Your task to perform on an android device: turn on javascript in the chrome app Image 0: 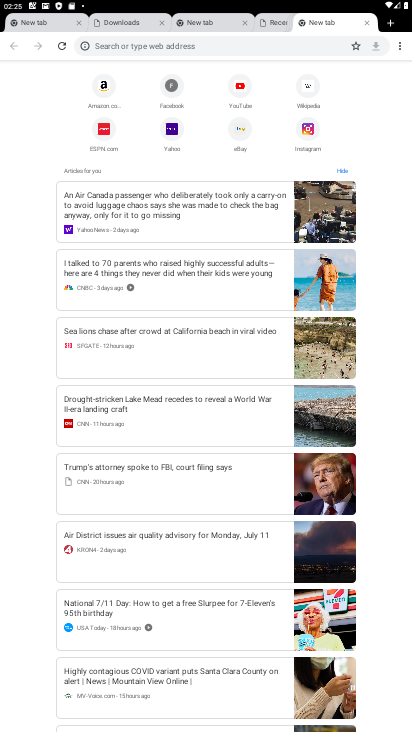
Step 0: press home button
Your task to perform on an android device: turn on javascript in the chrome app Image 1: 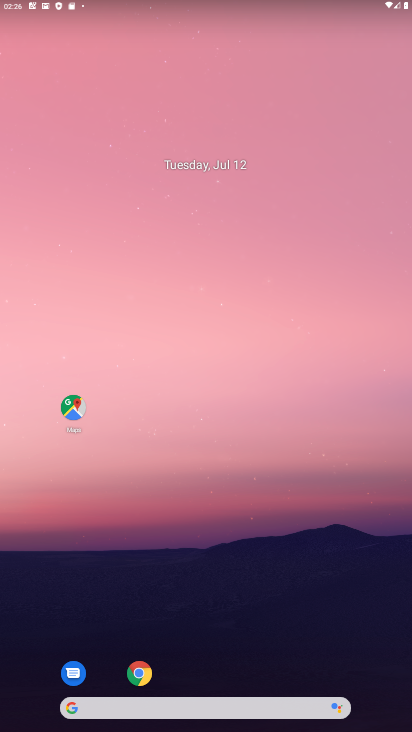
Step 1: drag from (214, 642) to (175, 141)
Your task to perform on an android device: turn on javascript in the chrome app Image 2: 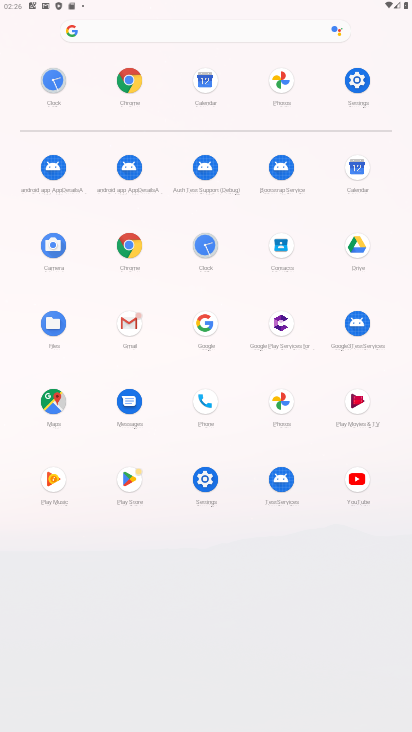
Step 2: click (126, 83)
Your task to perform on an android device: turn on javascript in the chrome app Image 3: 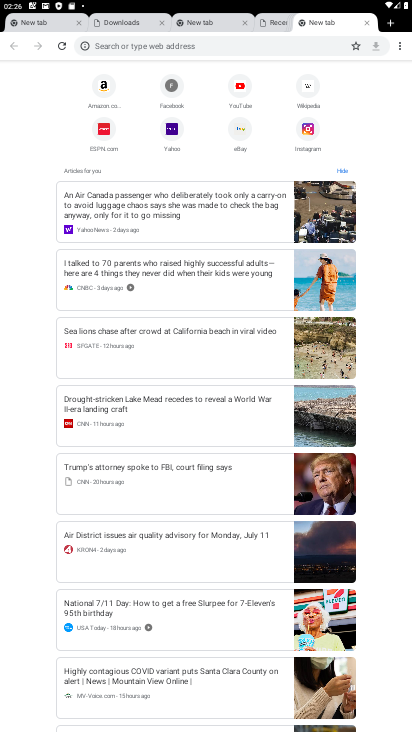
Step 3: drag from (399, 46) to (323, 209)
Your task to perform on an android device: turn on javascript in the chrome app Image 4: 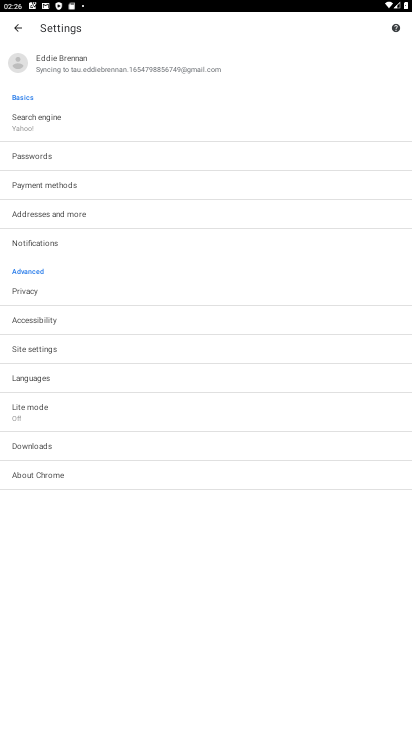
Step 4: click (61, 353)
Your task to perform on an android device: turn on javascript in the chrome app Image 5: 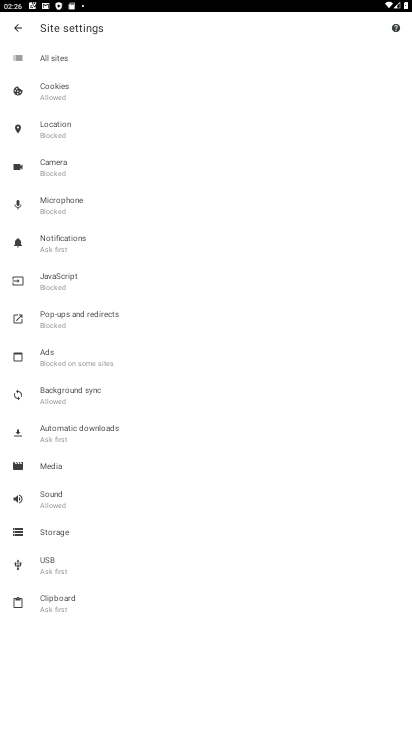
Step 5: click (66, 276)
Your task to perform on an android device: turn on javascript in the chrome app Image 6: 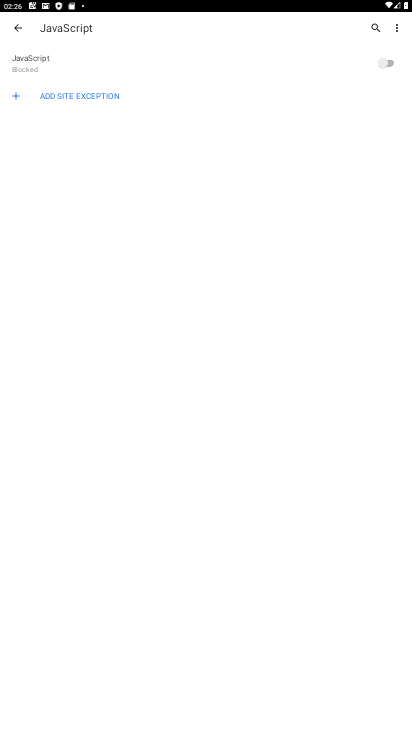
Step 6: click (386, 59)
Your task to perform on an android device: turn on javascript in the chrome app Image 7: 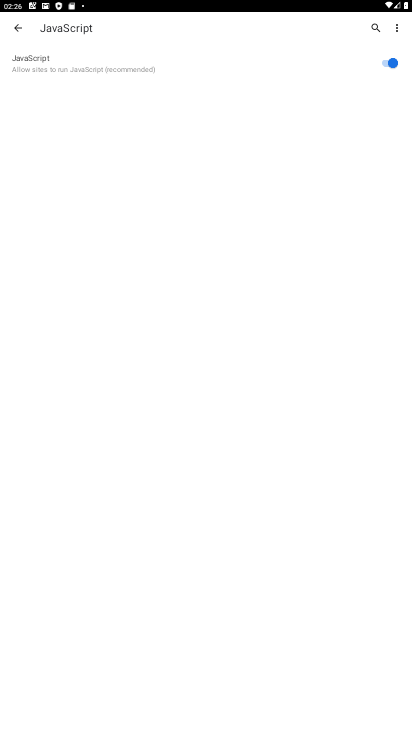
Step 7: task complete